Your task to perform on an android device: open app "Google Calendar" Image 0: 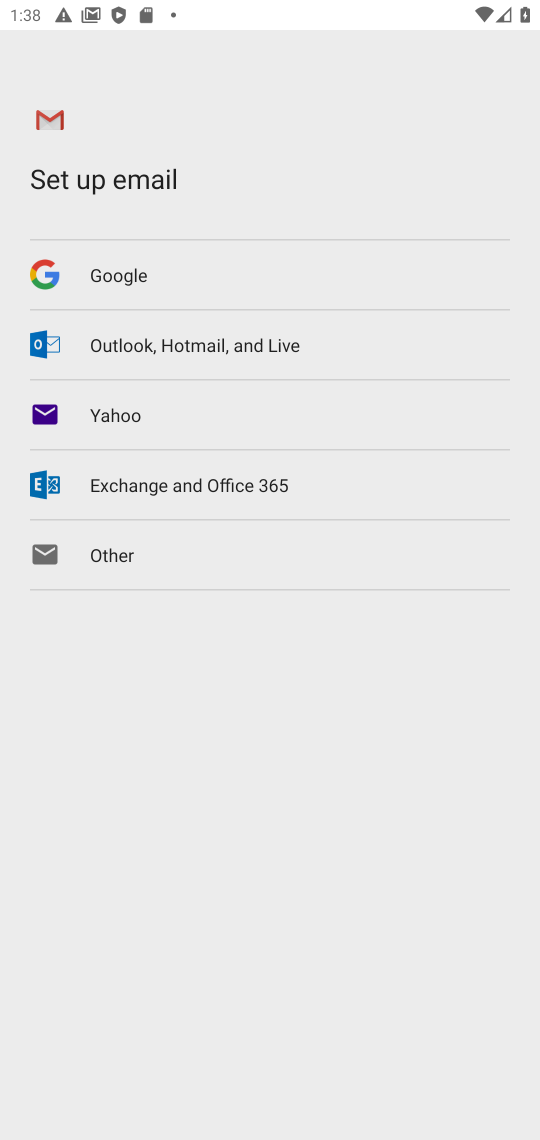
Step 0: press home button
Your task to perform on an android device: open app "Google Calendar" Image 1: 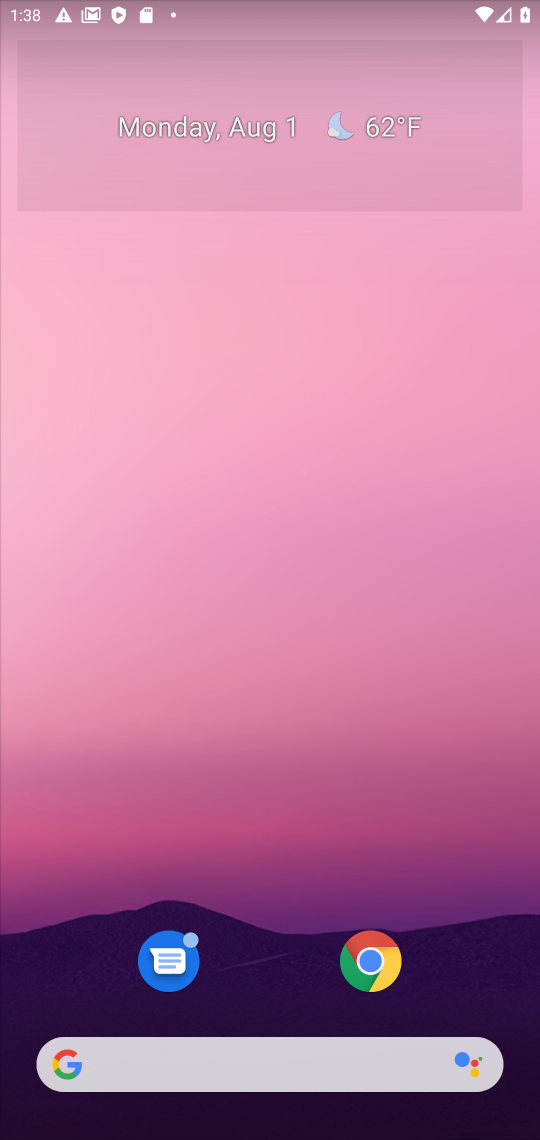
Step 1: drag from (253, 835) to (269, 144)
Your task to perform on an android device: open app "Google Calendar" Image 2: 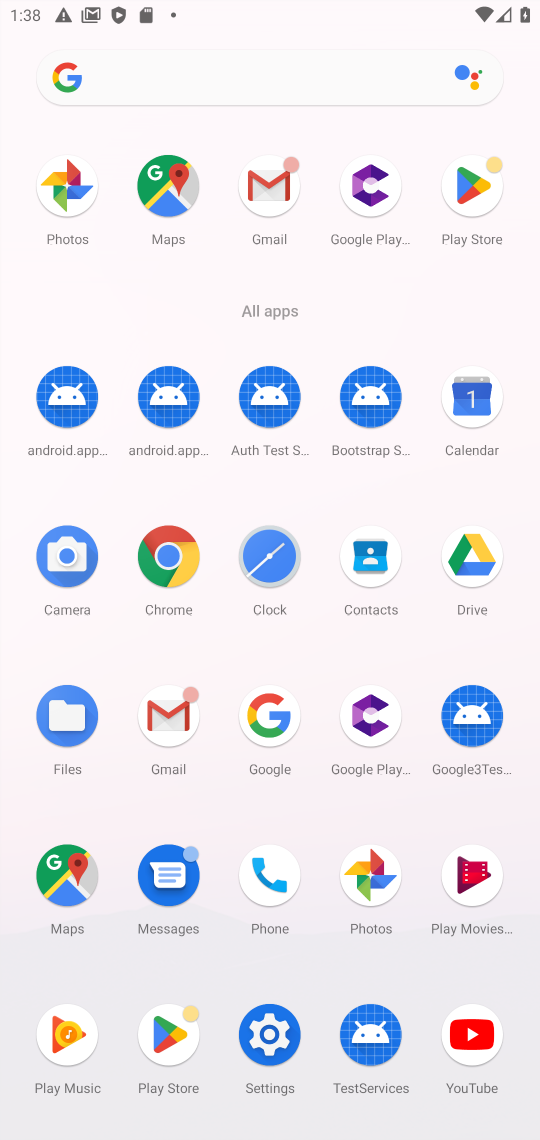
Step 2: drag from (324, 811) to (375, 71)
Your task to perform on an android device: open app "Google Calendar" Image 3: 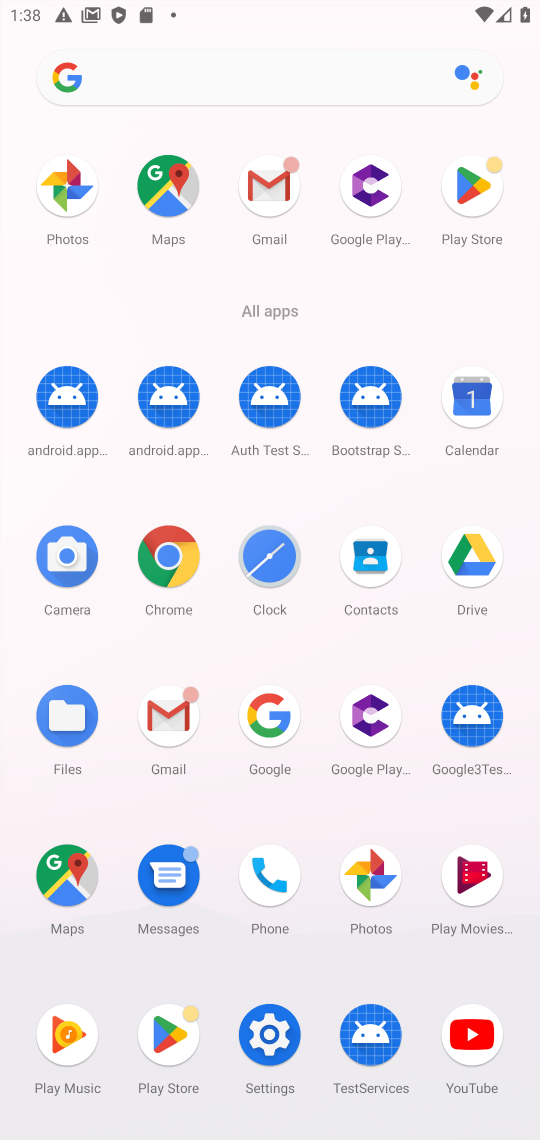
Step 3: click (461, 175)
Your task to perform on an android device: open app "Google Calendar" Image 4: 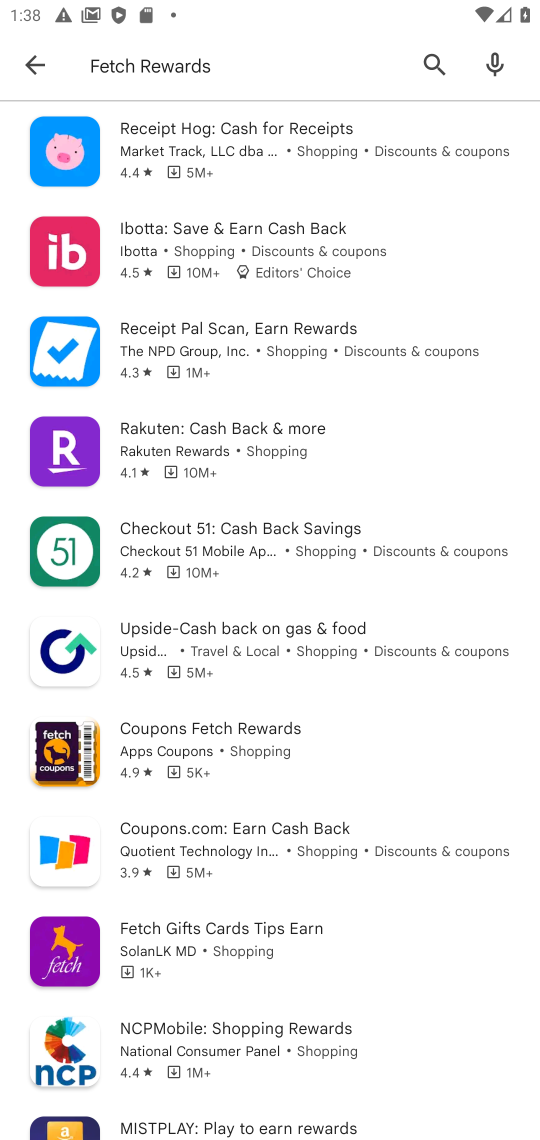
Step 4: click (308, 74)
Your task to perform on an android device: open app "Google Calendar" Image 5: 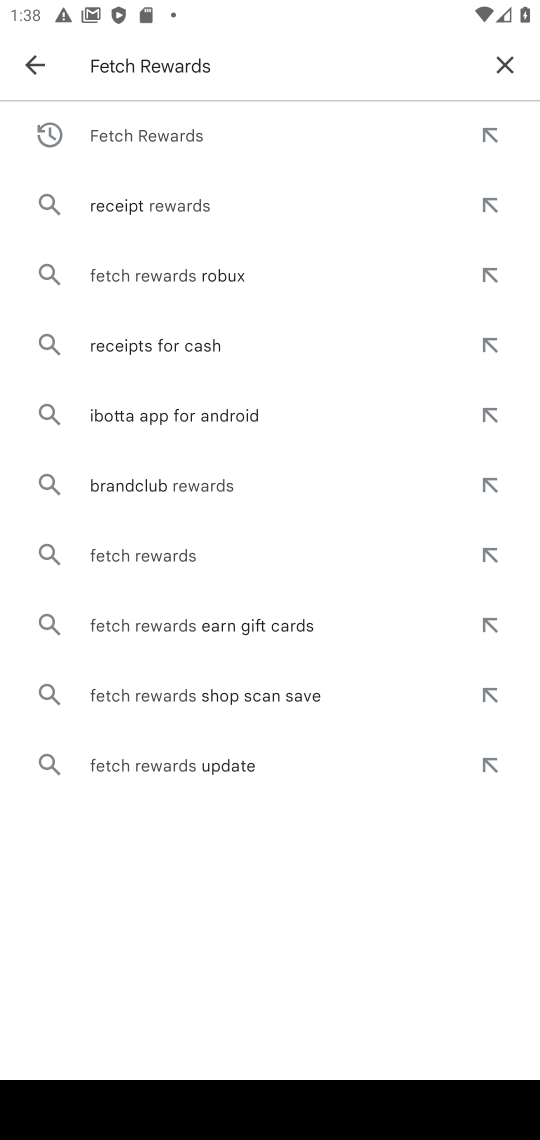
Step 5: click (510, 57)
Your task to perform on an android device: open app "Google Calendar" Image 6: 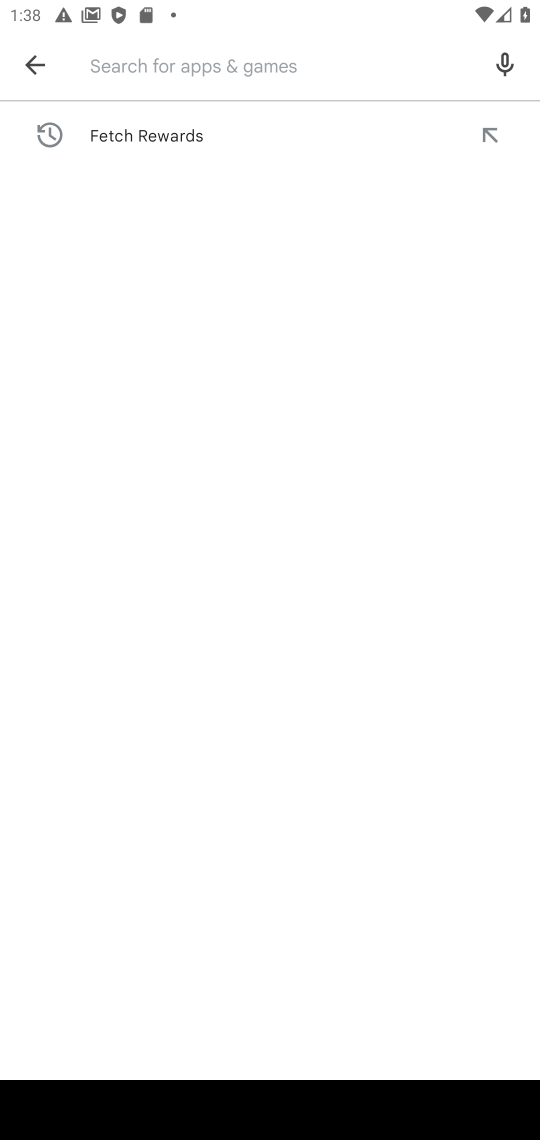
Step 6: type "Google Calender"
Your task to perform on an android device: open app "Google Calendar" Image 7: 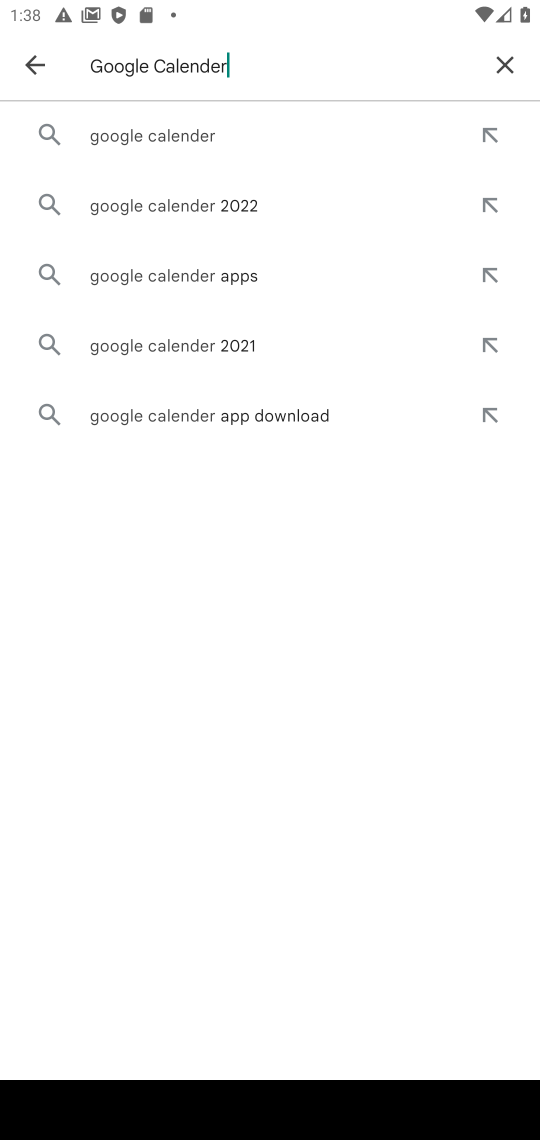
Step 7: press enter
Your task to perform on an android device: open app "Google Calendar" Image 8: 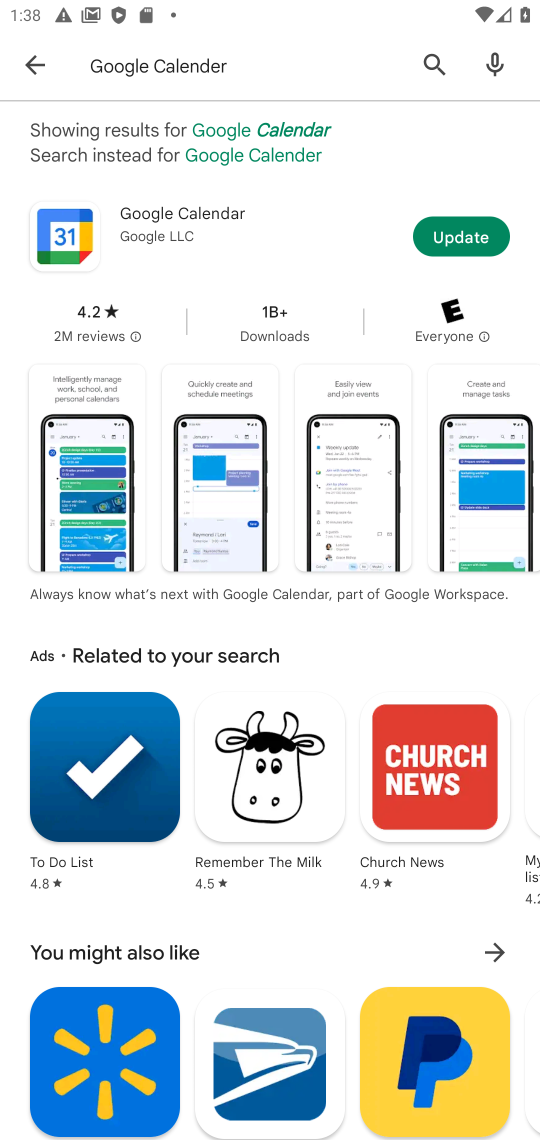
Step 8: click (326, 237)
Your task to perform on an android device: open app "Google Calendar" Image 9: 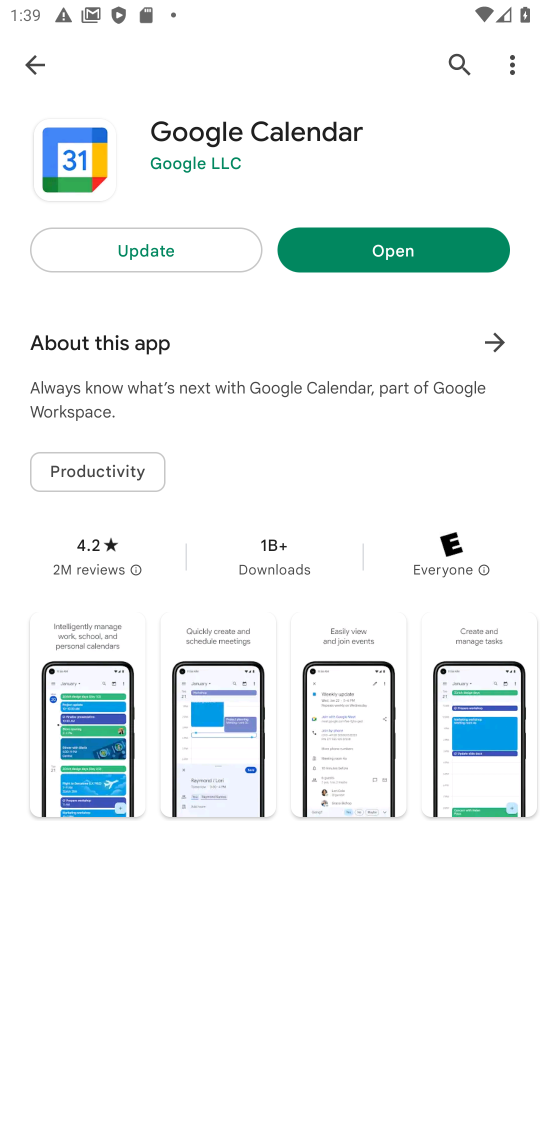
Step 9: click (386, 251)
Your task to perform on an android device: open app "Google Calendar" Image 10: 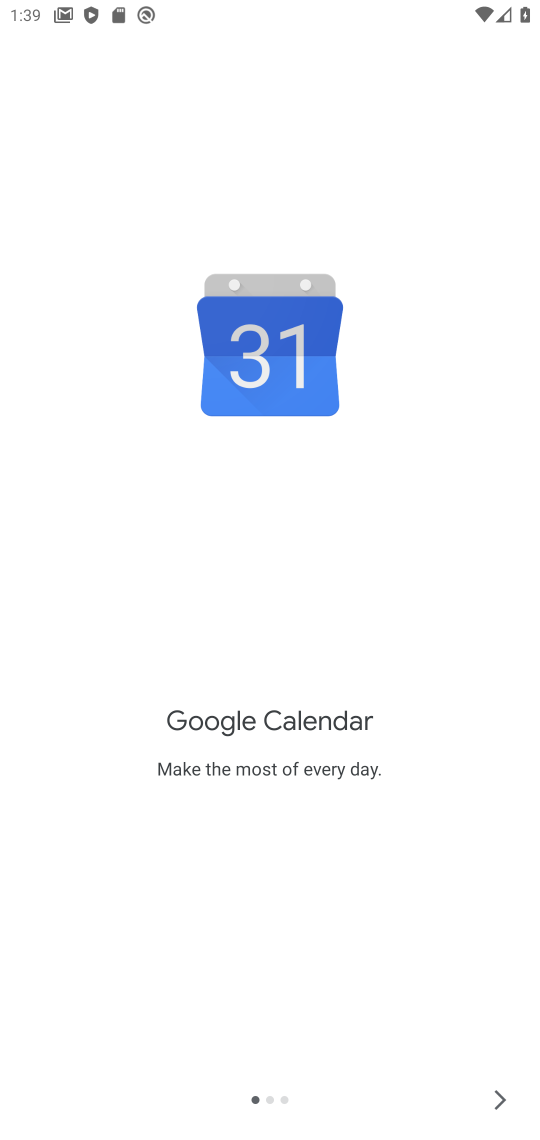
Step 10: click (509, 1098)
Your task to perform on an android device: open app "Google Calendar" Image 11: 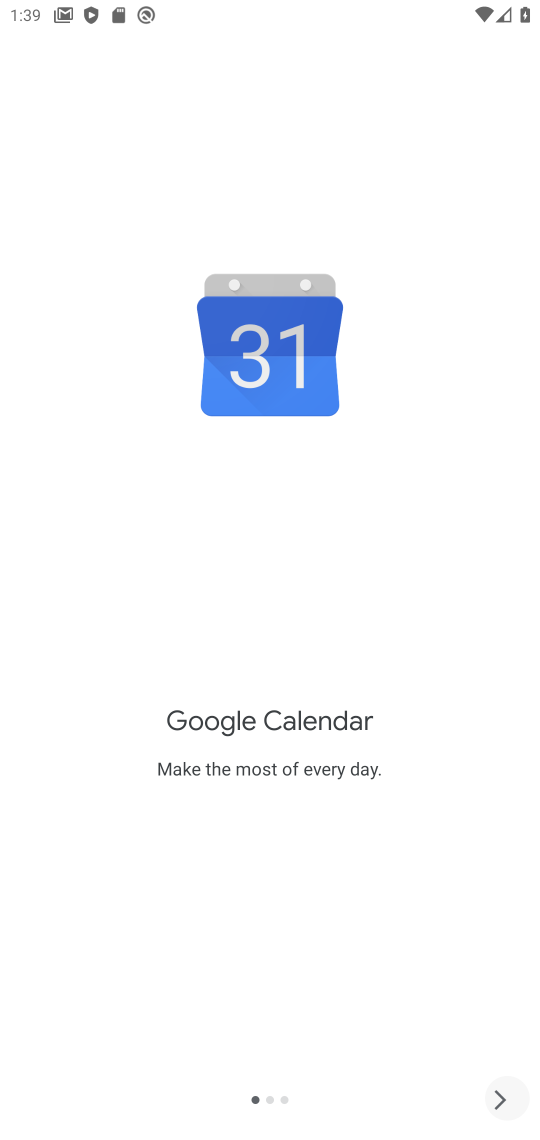
Step 11: click (509, 1098)
Your task to perform on an android device: open app "Google Calendar" Image 12: 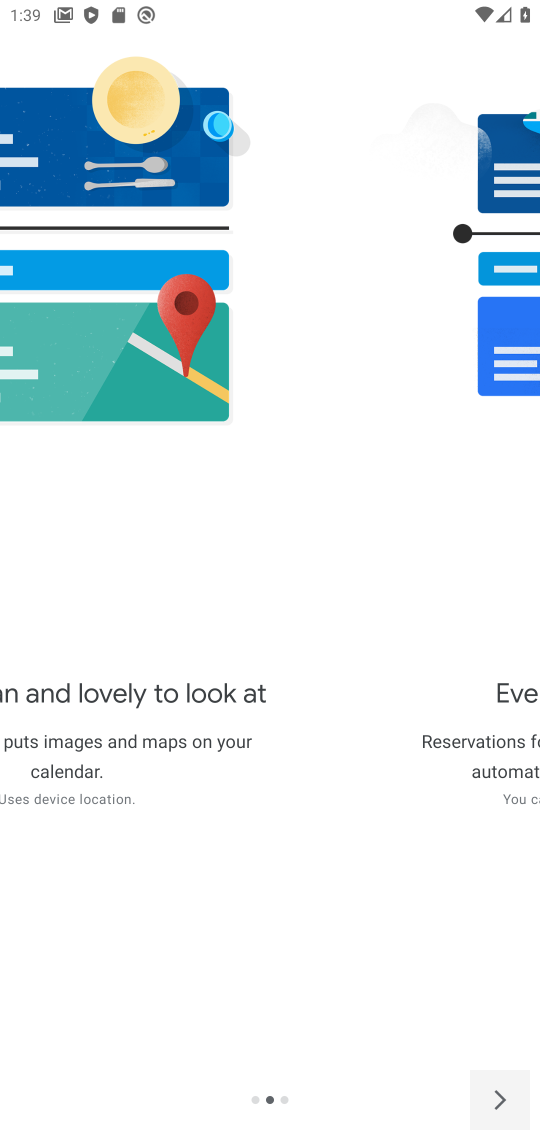
Step 12: click (509, 1098)
Your task to perform on an android device: open app "Google Calendar" Image 13: 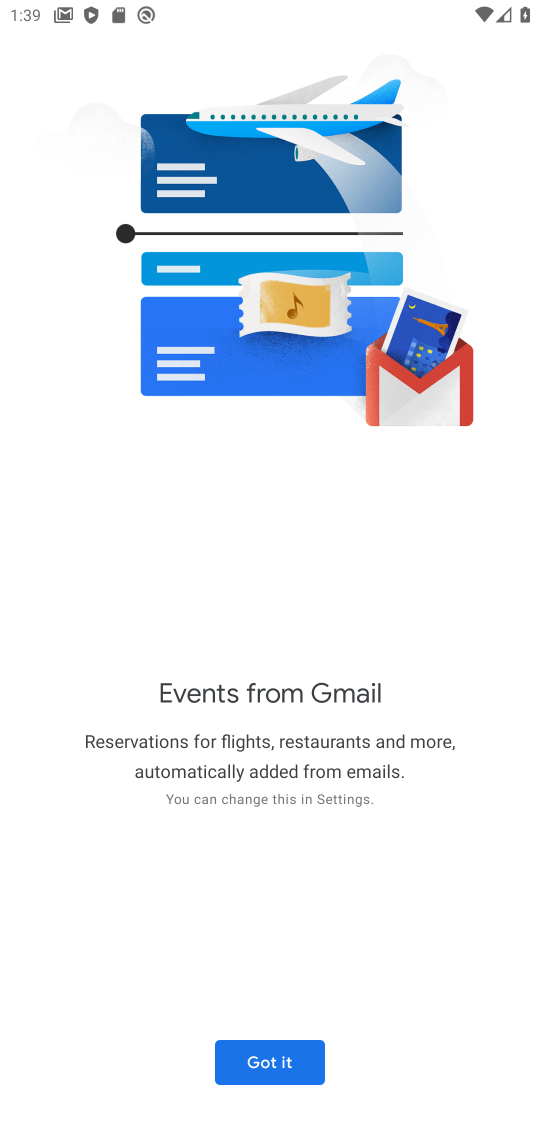
Step 13: click (287, 1050)
Your task to perform on an android device: open app "Google Calendar" Image 14: 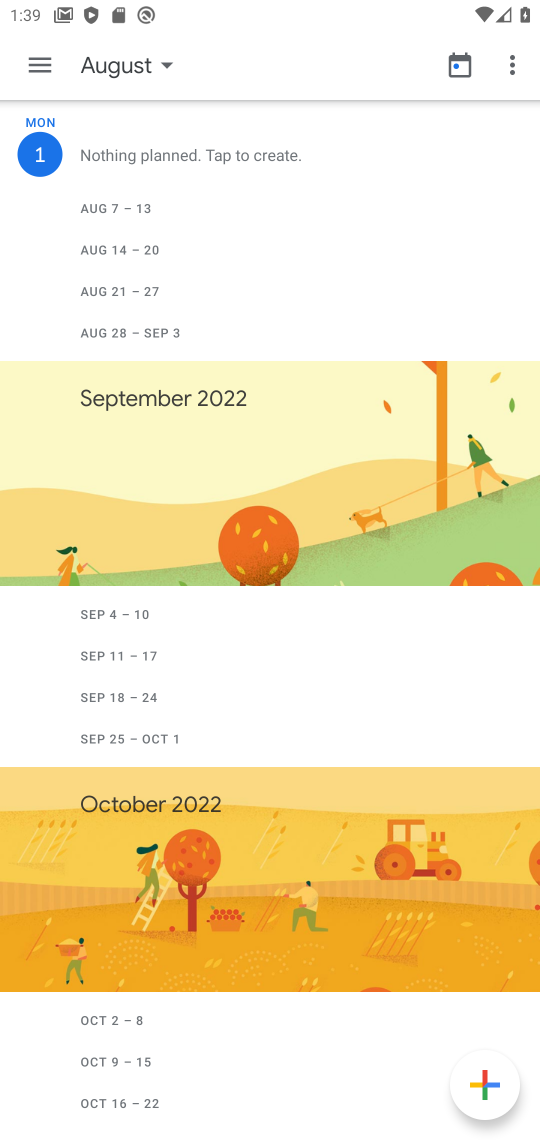
Step 14: task complete